Your task to perform on an android device: Go to notification settings Image 0: 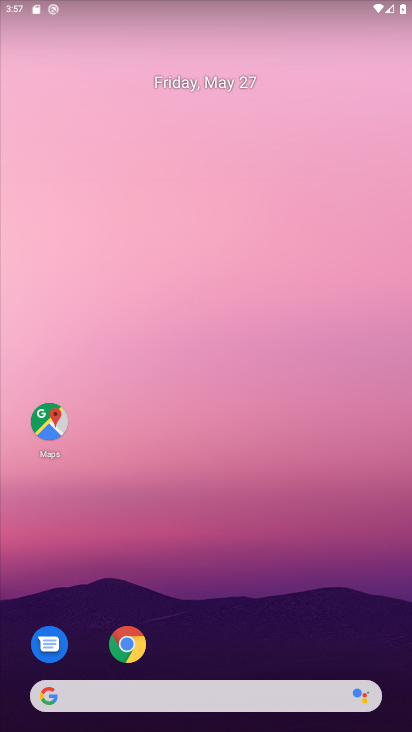
Step 0: drag from (268, 607) to (161, 72)
Your task to perform on an android device: Go to notification settings Image 1: 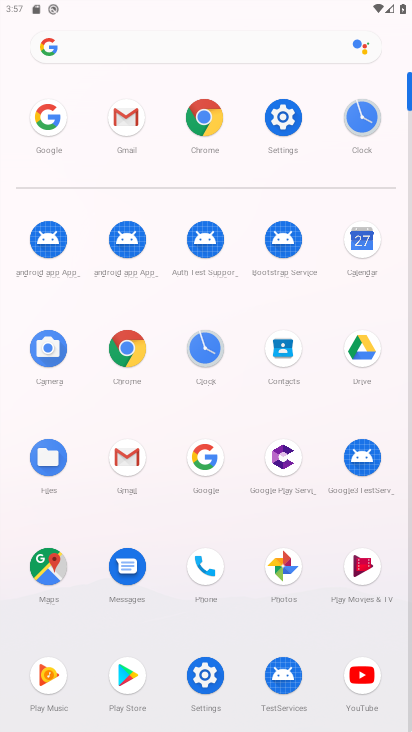
Step 1: click (272, 127)
Your task to perform on an android device: Go to notification settings Image 2: 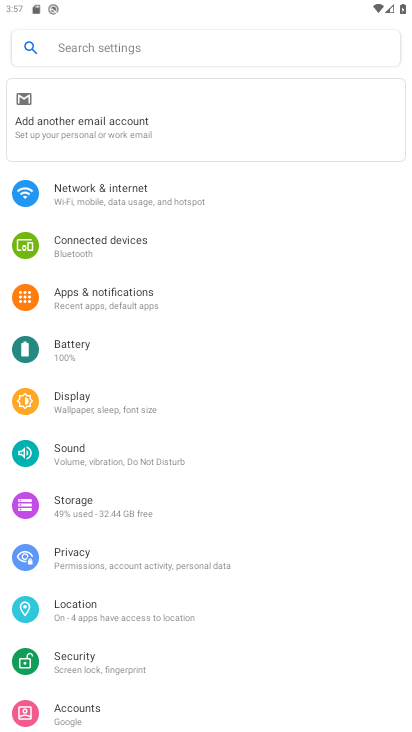
Step 2: click (174, 297)
Your task to perform on an android device: Go to notification settings Image 3: 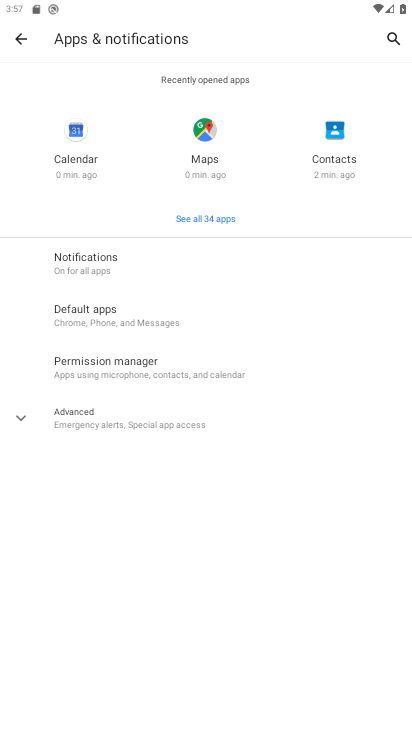
Step 3: task complete